Your task to perform on an android device: toggle priority inbox in the gmail app Image 0: 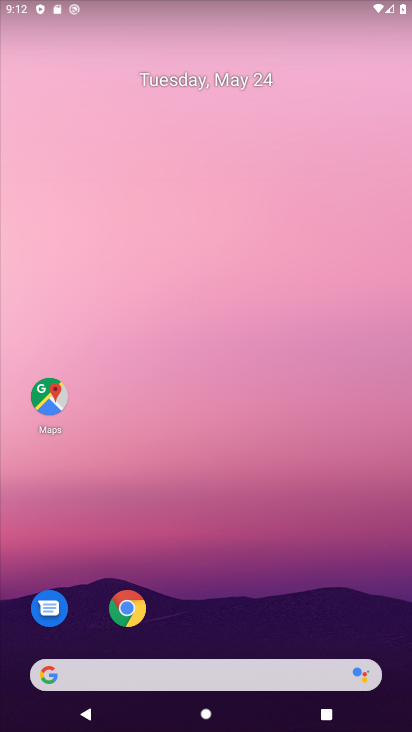
Step 0: drag from (257, 594) to (249, 0)
Your task to perform on an android device: toggle priority inbox in the gmail app Image 1: 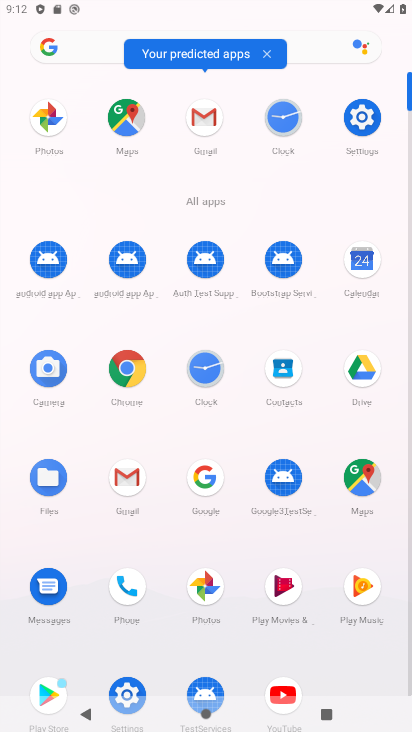
Step 1: click (136, 488)
Your task to perform on an android device: toggle priority inbox in the gmail app Image 2: 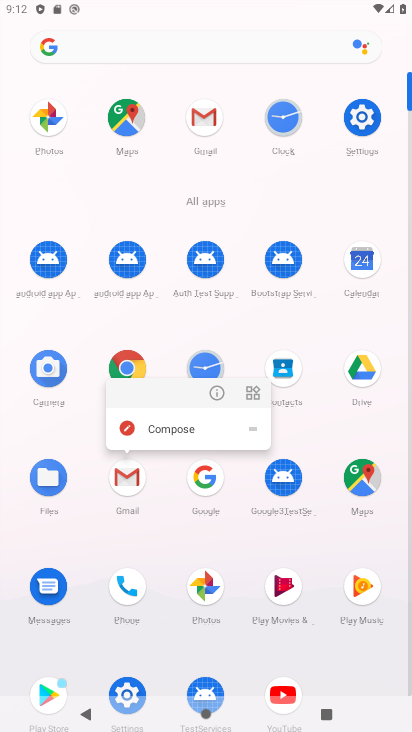
Step 2: click (123, 478)
Your task to perform on an android device: toggle priority inbox in the gmail app Image 3: 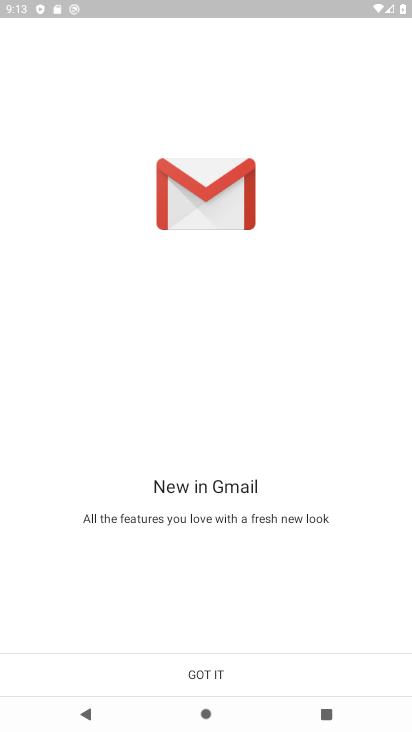
Step 3: click (206, 677)
Your task to perform on an android device: toggle priority inbox in the gmail app Image 4: 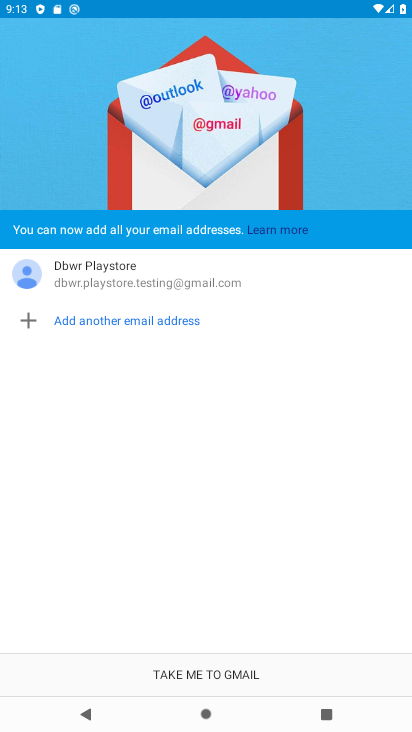
Step 4: click (189, 666)
Your task to perform on an android device: toggle priority inbox in the gmail app Image 5: 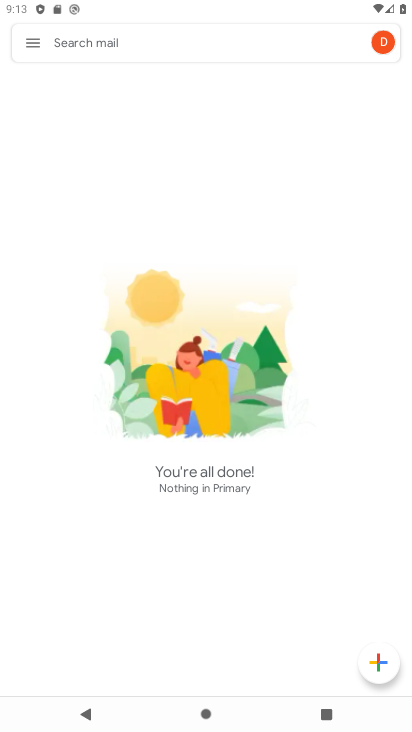
Step 5: click (34, 40)
Your task to perform on an android device: toggle priority inbox in the gmail app Image 6: 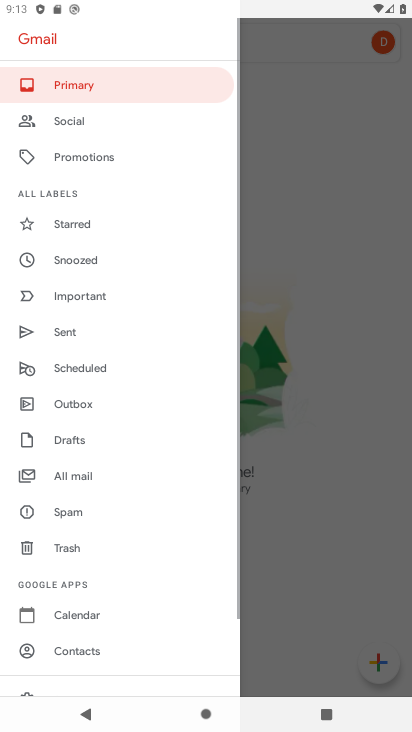
Step 6: drag from (123, 639) to (142, 328)
Your task to perform on an android device: toggle priority inbox in the gmail app Image 7: 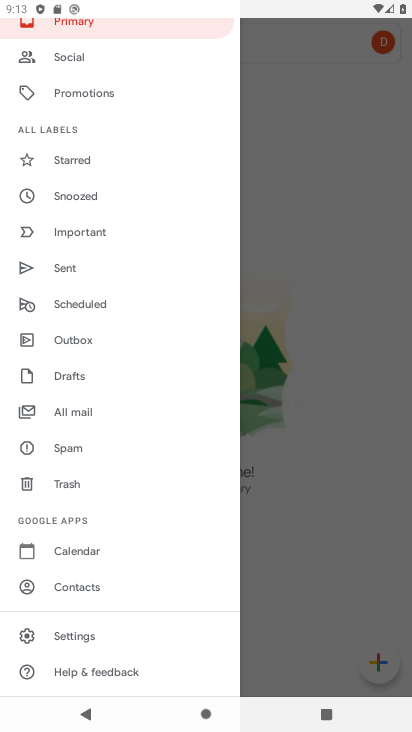
Step 7: click (67, 636)
Your task to perform on an android device: toggle priority inbox in the gmail app Image 8: 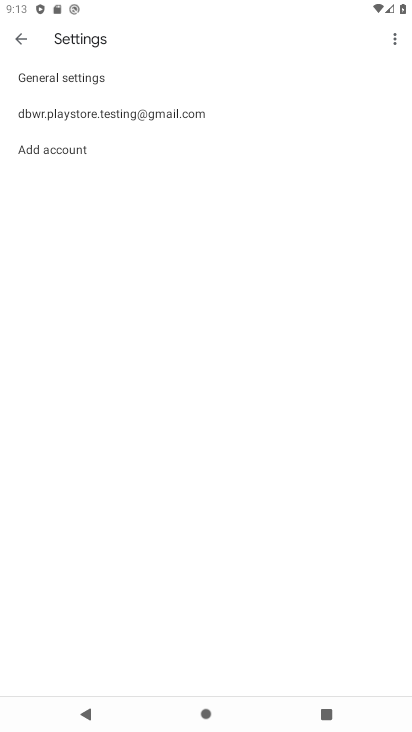
Step 8: click (85, 113)
Your task to perform on an android device: toggle priority inbox in the gmail app Image 9: 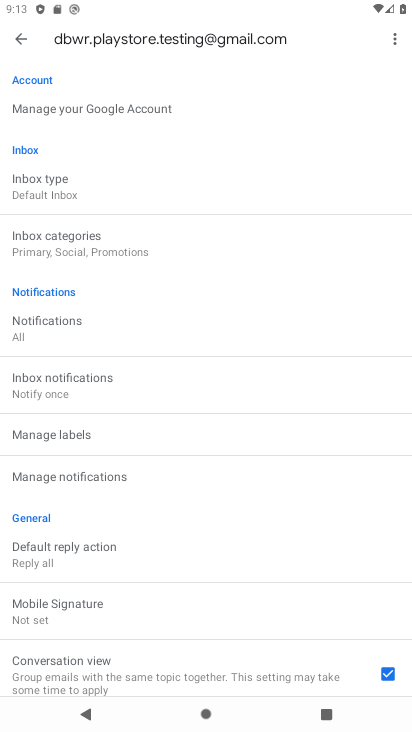
Step 9: click (62, 195)
Your task to perform on an android device: toggle priority inbox in the gmail app Image 10: 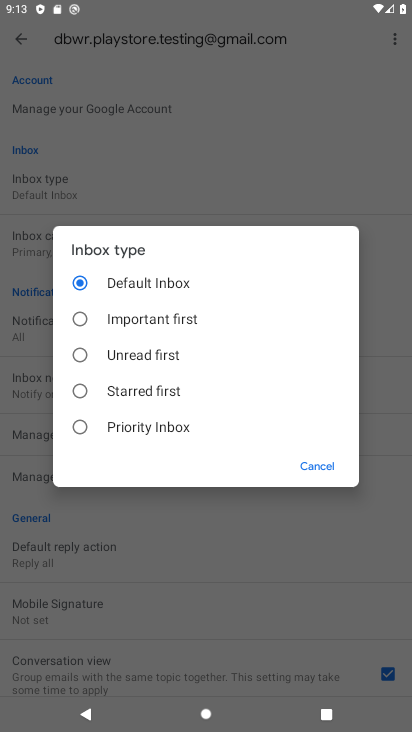
Step 10: click (87, 424)
Your task to perform on an android device: toggle priority inbox in the gmail app Image 11: 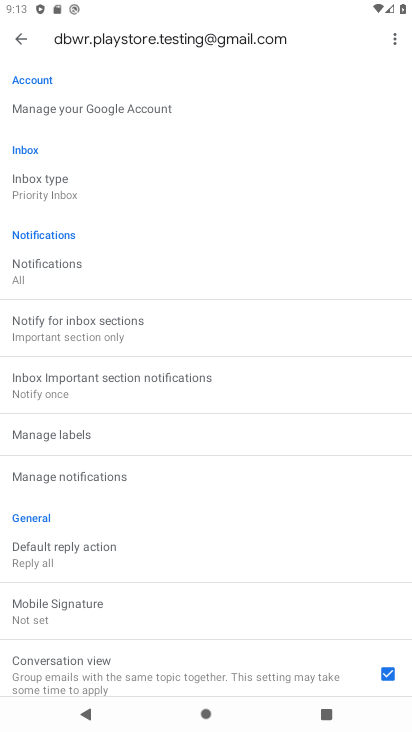
Step 11: task complete